Your task to perform on an android device: Open Yahoo.com Image 0: 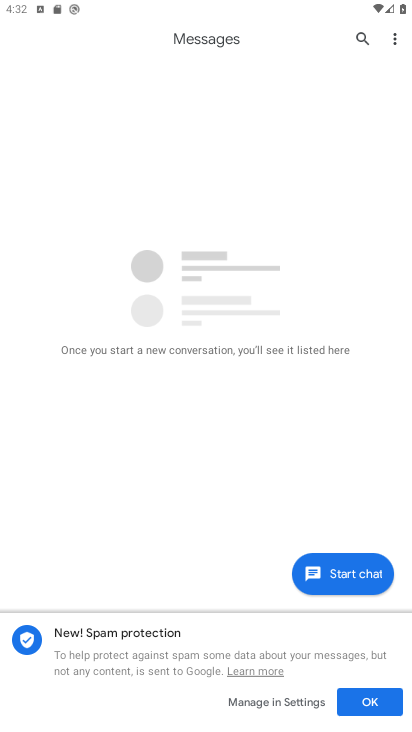
Step 0: press home button
Your task to perform on an android device: Open Yahoo.com Image 1: 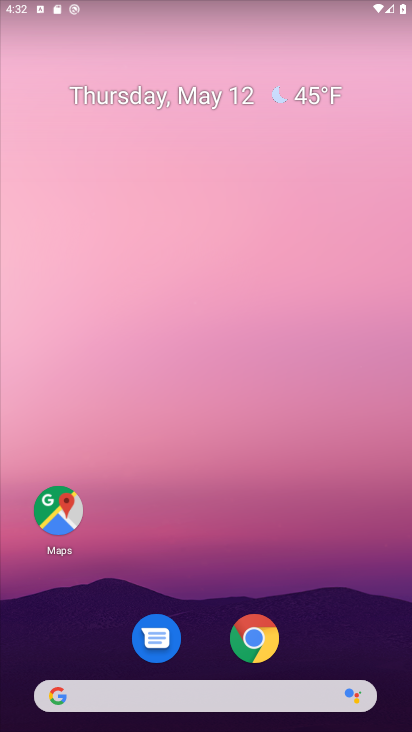
Step 1: drag from (323, 618) to (299, 726)
Your task to perform on an android device: Open Yahoo.com Image 2: 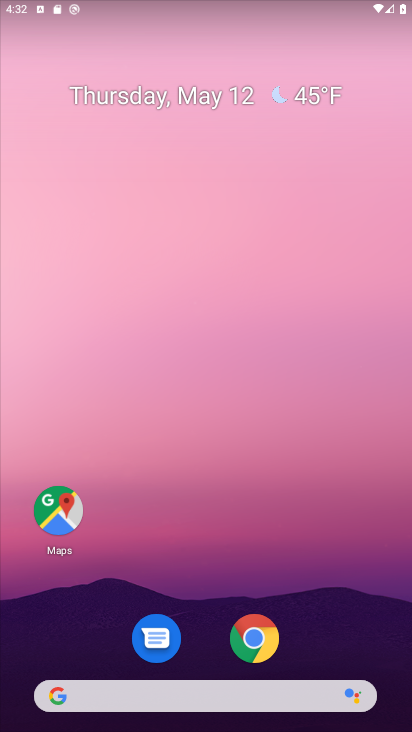
Step 2: click (264, 636)
Your task to perform on an android device: Open Yahoo.com Image 3: 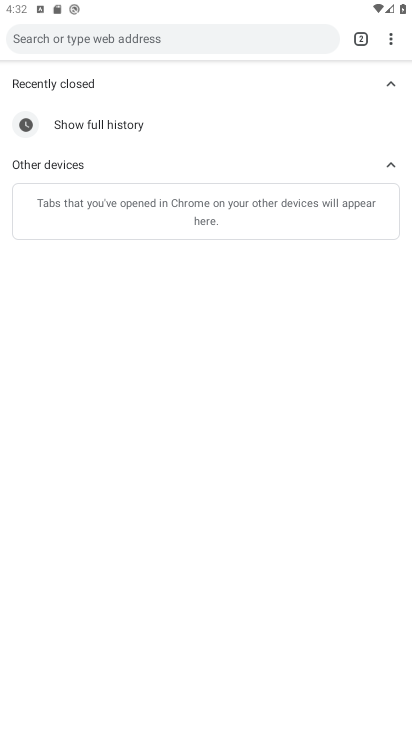
Step 3: click (360, 39)
Your task to perform on an android device: Open Yahoo.com Image 4: 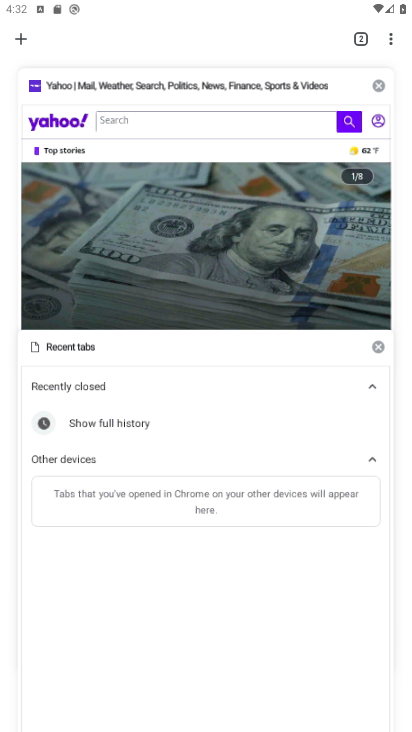
Step 4: click (12, 34)
Your task to perform on an android device: Open Yahoo.com Image 5: 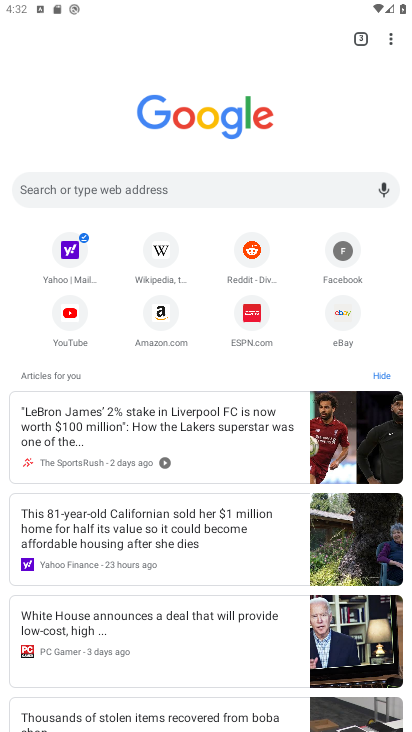
Step 5: click (72, 255)
Your task to perform on an android device: Open Yahoo.com Image 6: 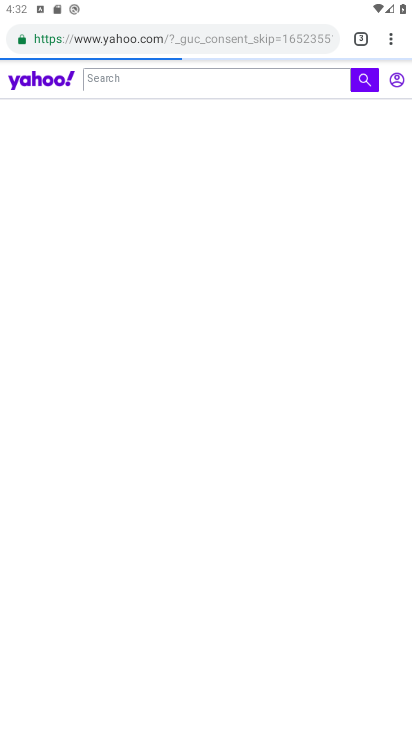
Step 6: task complete